Your task to perform on an android device: Search for pizza restaurants on Maps Image 0: 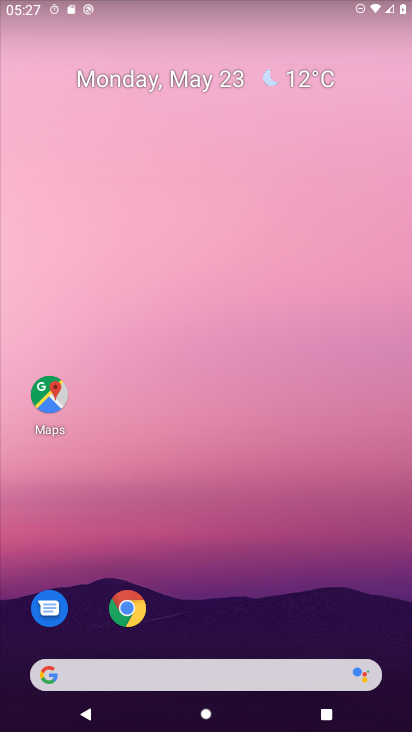
Step 0: click (43, 387)
Your task to perform on an android device: Search for pizza restaurants on Maps Image 1: 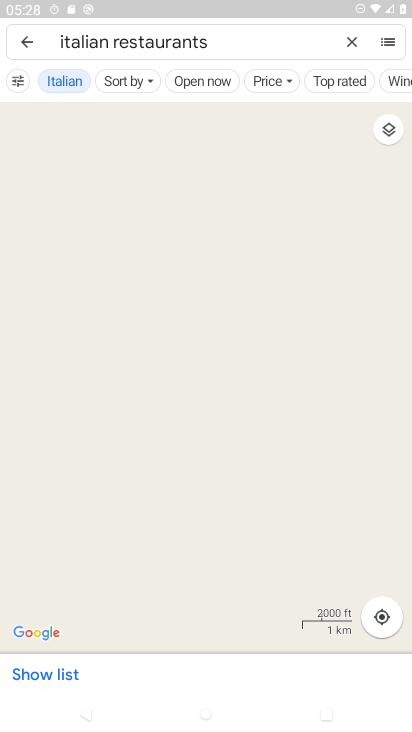
Step 1: click (353, 39)
Your task to perform on an android device: Search for pizza restaurants on Maps Image 2: 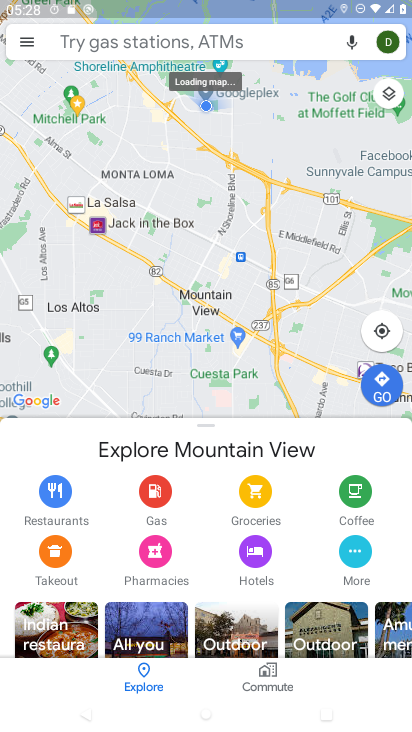
Step 2: click (145, 40)
Your task to perform on an android device: Search for pizza restaurants on Maps Image 3: 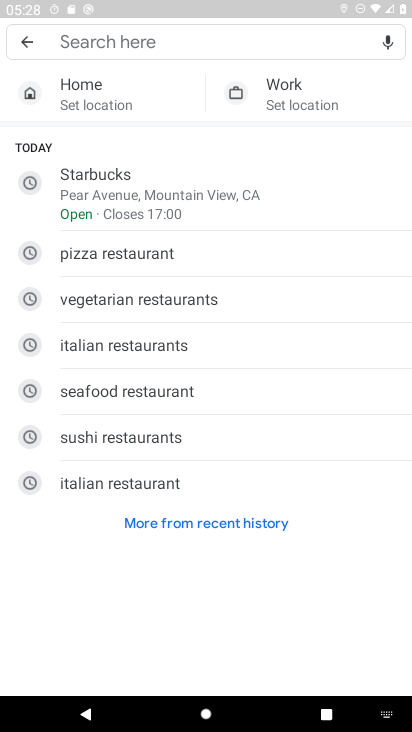
Step 3: click (157, 245)
Your task to perform on an android device: Search for pizza restaurants on Maps Image 4: 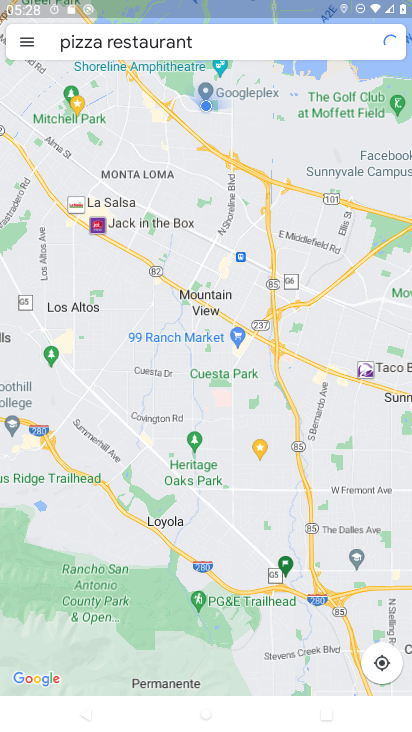
Step 4: task complete